Your task to perform on an android device: Open wifi settings Image 0: 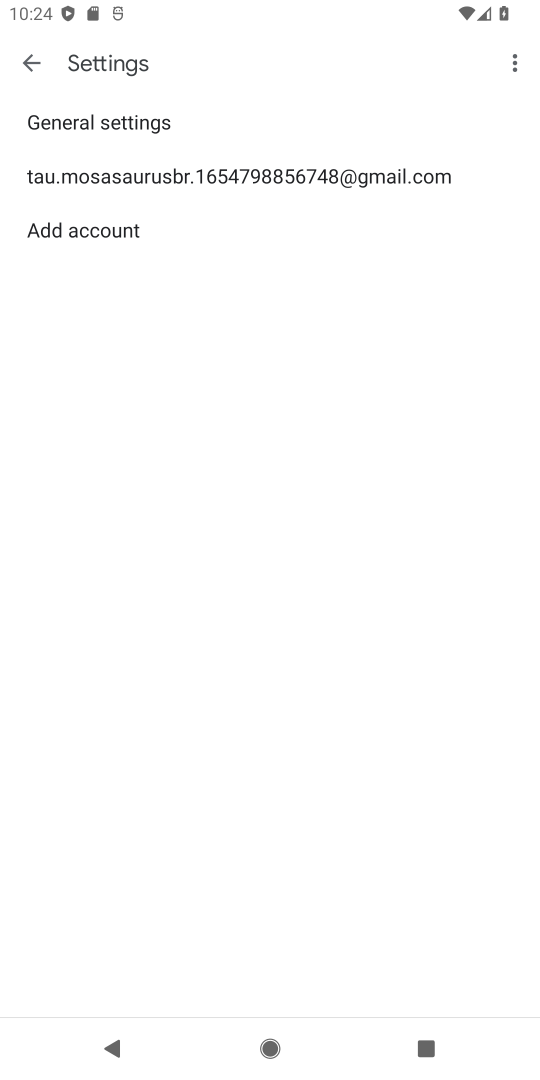
Step 0: press home button
Your task to perform on an android device: Open wifi settings Image 1: 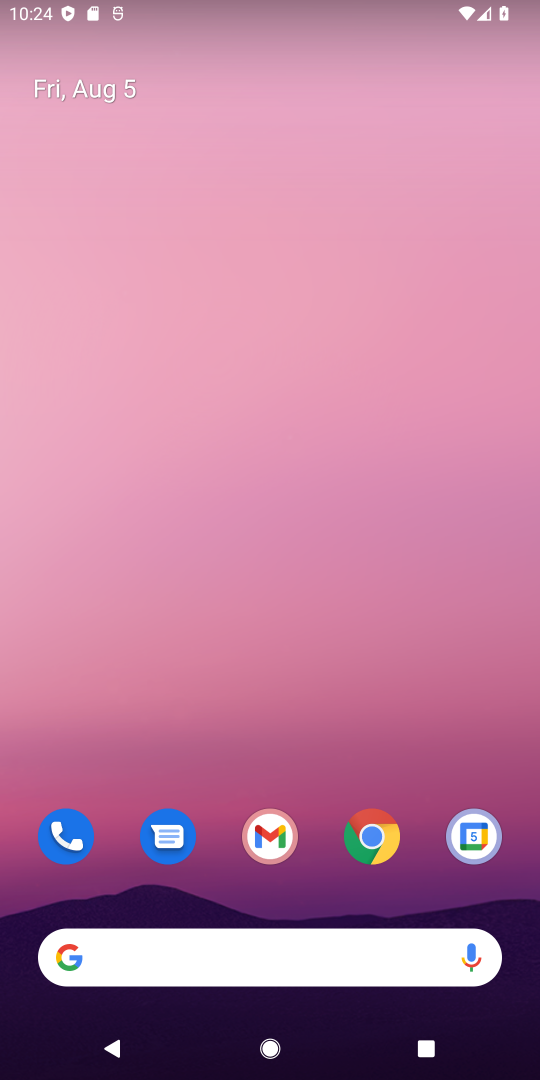
Step 1: drag from (293, 708) to (341, 162)
Your task to perform on an android device: Open wifi settings Image 2: 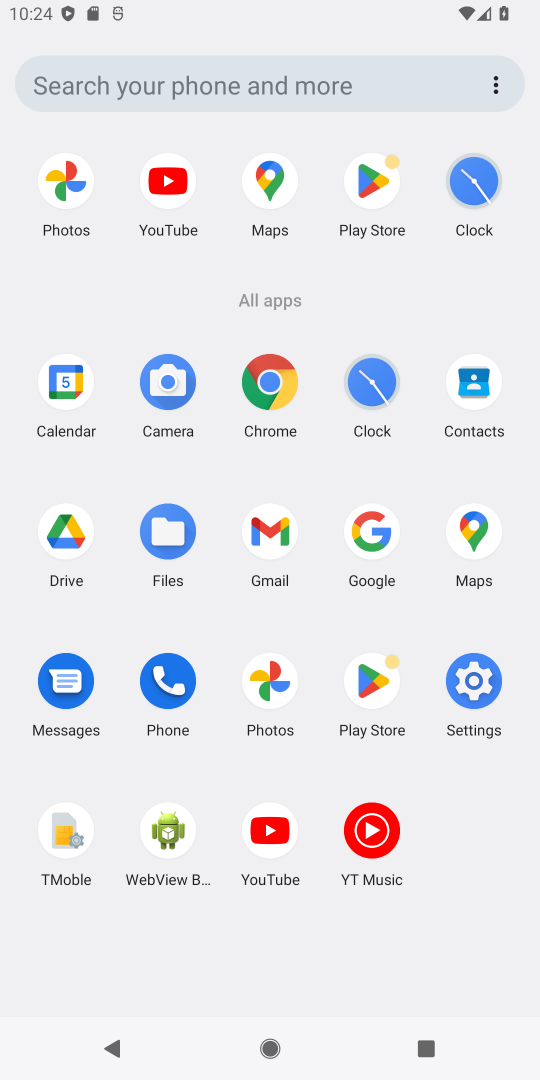
Step 2: click (484, 682)
Your task to perform on an android device: Open wifi settings Image 3: 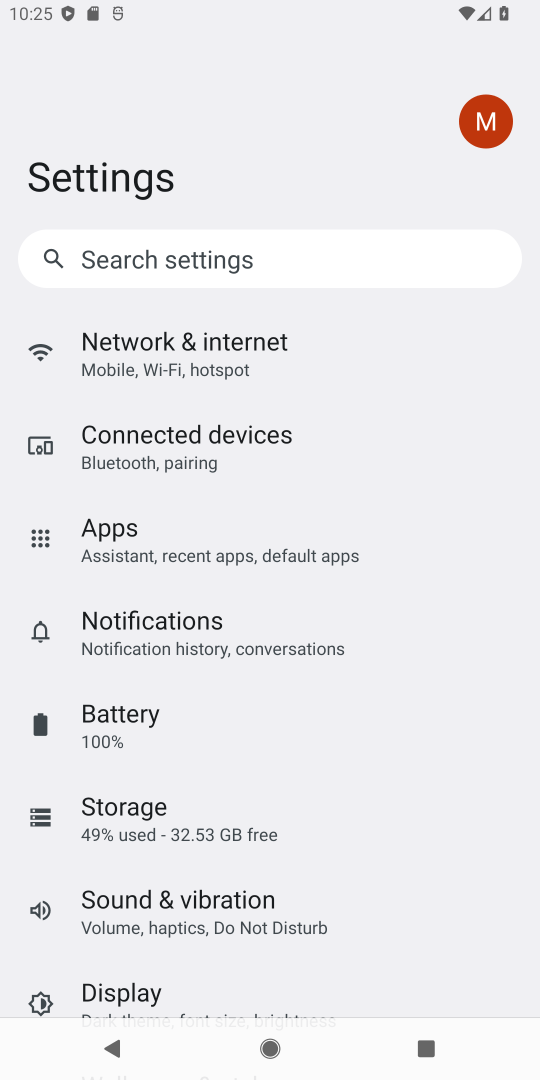
Step 3: click (267, 344)
Your task to perform on an android device: Open wifi settings Image 4: 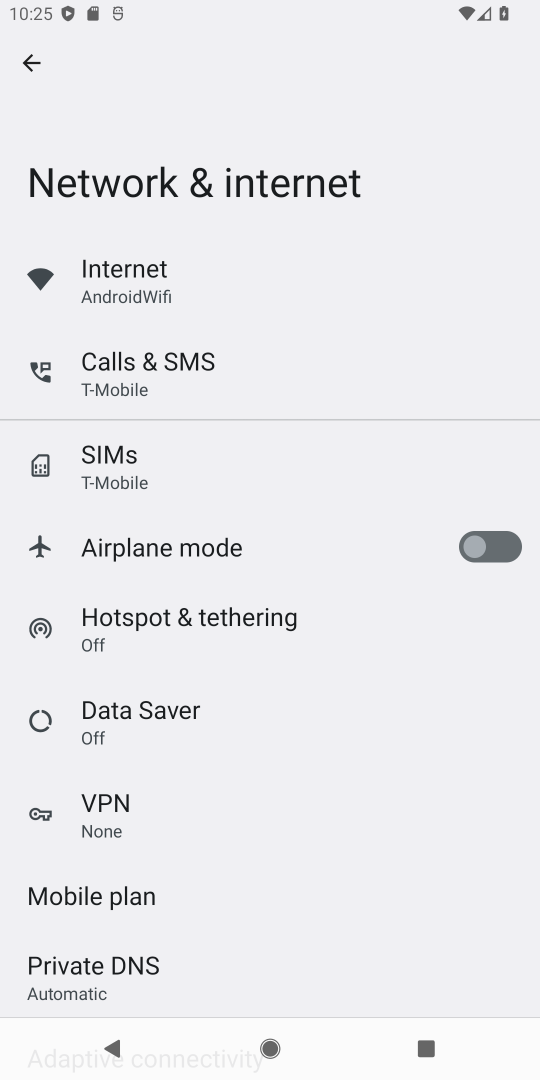
Step 4: click (146, 286)
Your task to perform on an android device: Open wifi settings Image 5: 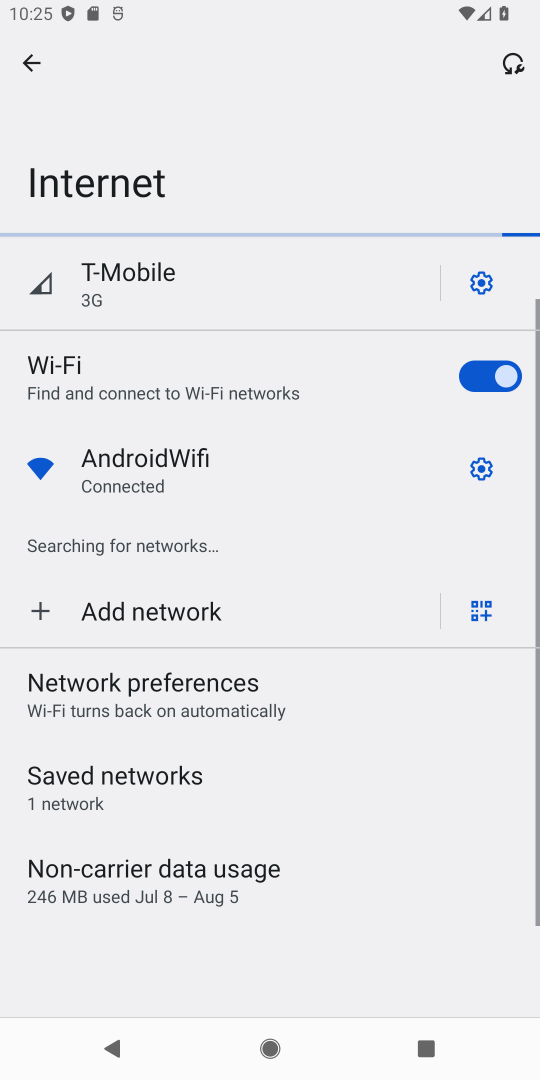
Step 5: click (489, 465)
Your task to perform on an android device: Open wifi settings Image 6: 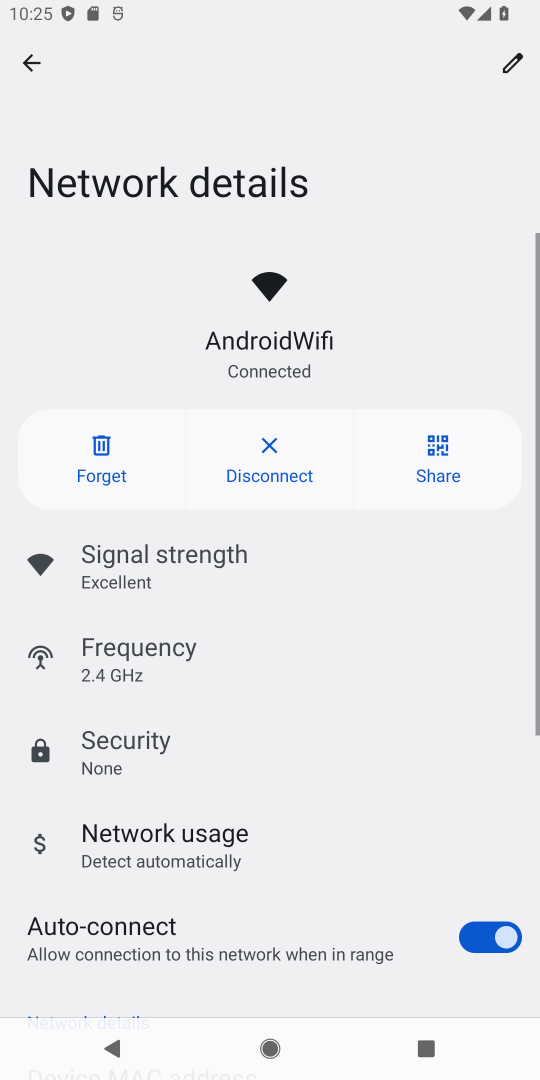
Step 6: task complete